Your task to perform on an android device: stop showing notifications on the lock screen Image 0: 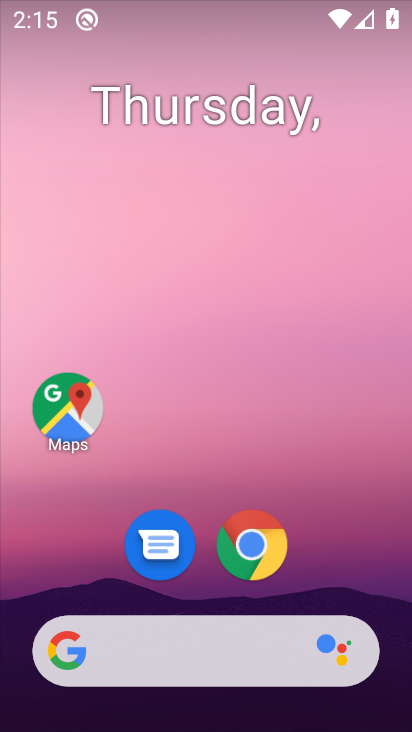
Step 0: drag from (215, 618) to (308, 192)
Your task to perform on an android device: stop showing notifications on the lock screen Image 1: 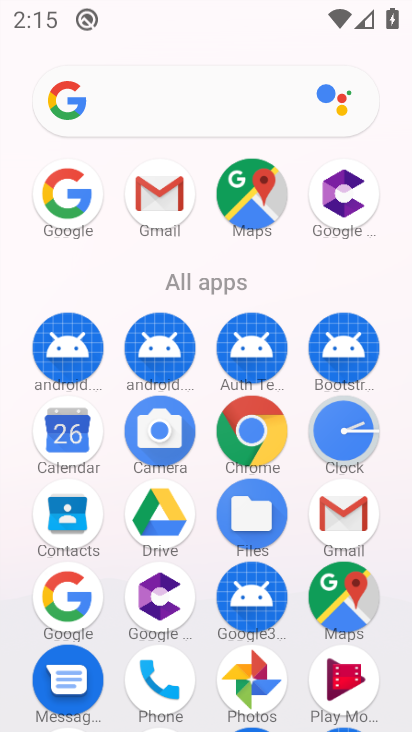
Step 1: drag from (145, 524) to (191, 175)
Your task to perform on an android device: stop showing notifications on the lock screen Image 2: 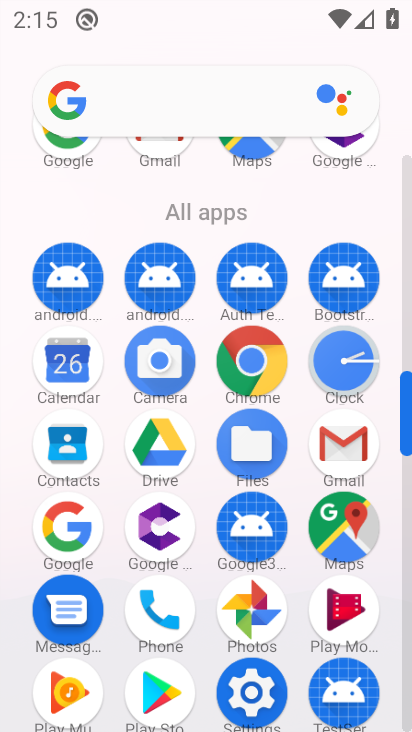
Step 2: click (249, 698)
Your task to perform on an android device: stop showing notifications on the lock screen Image 3: 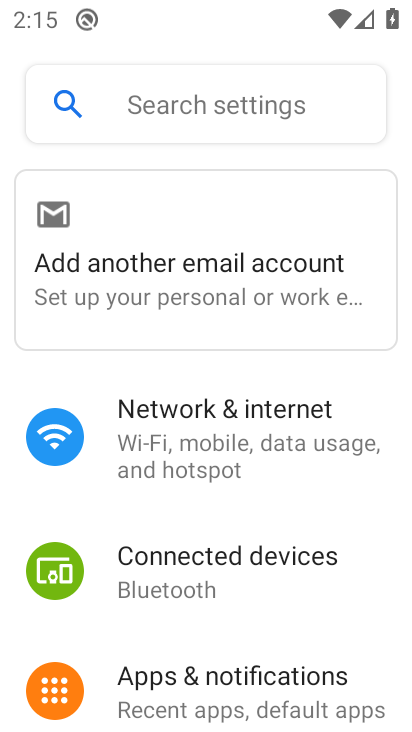
Step 3: drag from (181, 653) to (232, 225)
Your task to perform on an android device: stop showing notifications on the lock screen Image 4: 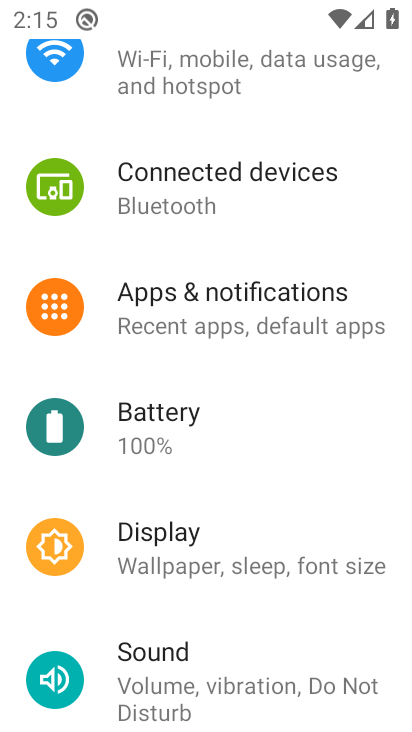
Step 4: drag from (193, 638) to (259, 182)
Your task to perform on an android device: stop showing notifications on the lock screen Image 5: 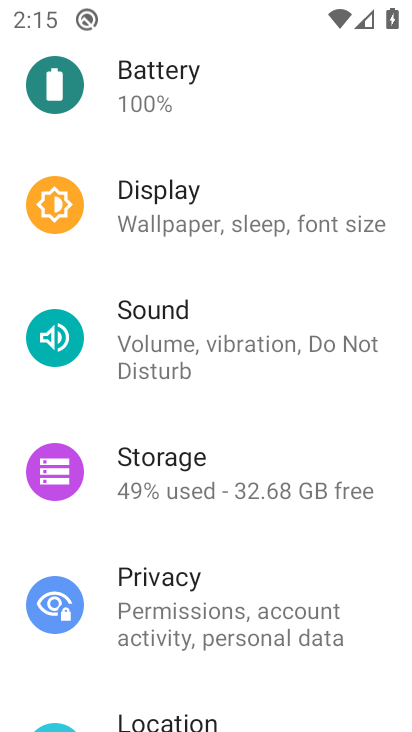
Step 5: click (171, 605)
Your task to perform on an android device: stop showing notifications on the lock screen Image 6: 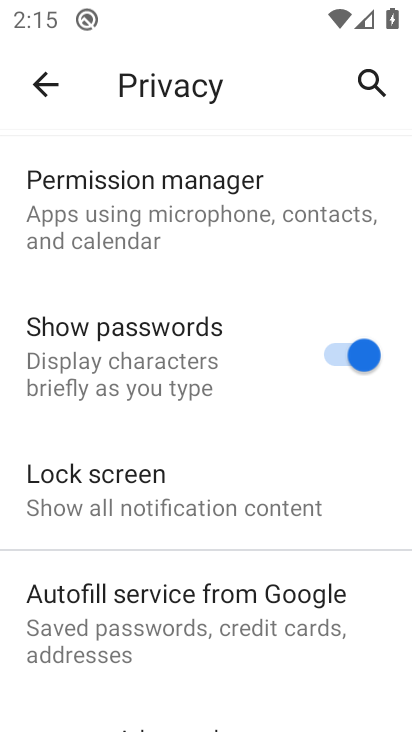
Step 6: click (171, 482)
Your task to perform on an android device: stop showing notifications on the lock screen Image 7: 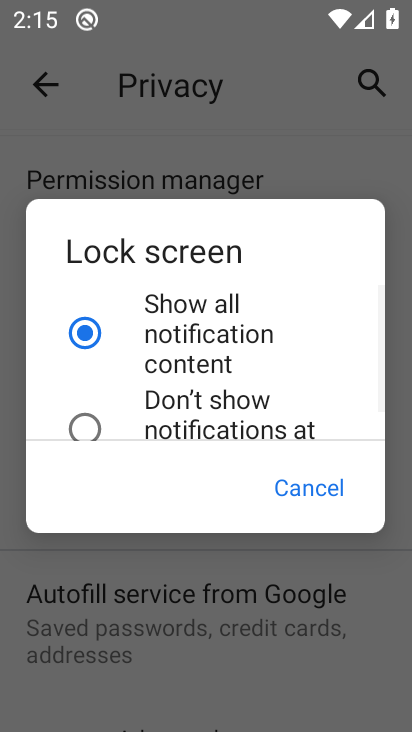
Step 7: click (223, 413)
Your task to perform on an android device: stop showing notifications on the lock screen Image 8: 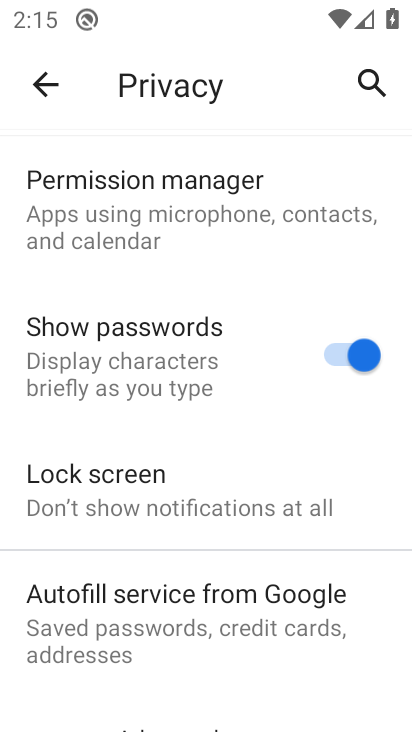
Step 8: task complete